Your task to perform on an android device: search for starred emails in the gmail app Image 0: 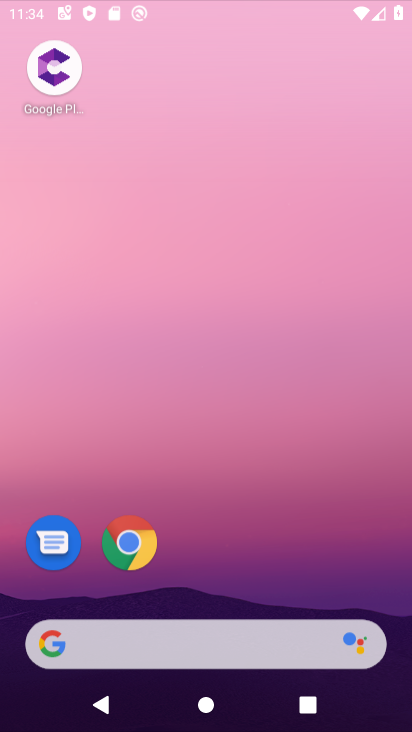
Step 0: click (259, 102)
Your task to perform on an android device: search for starred emails in the gmail app Image 1: 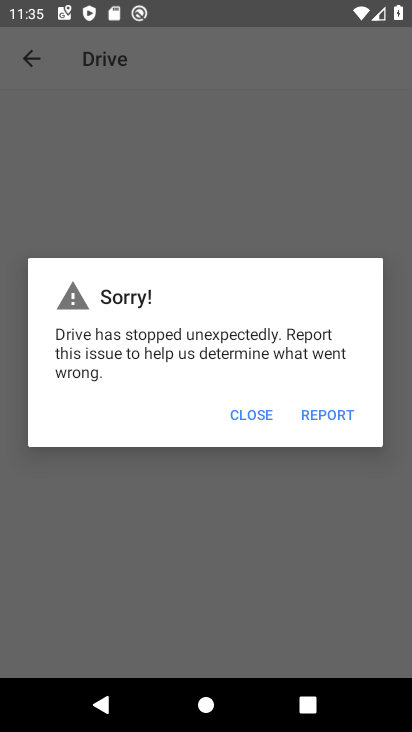
Step 1: press home button
Your task to perform on an android device: search for starred emails in the gmail app Image 2: 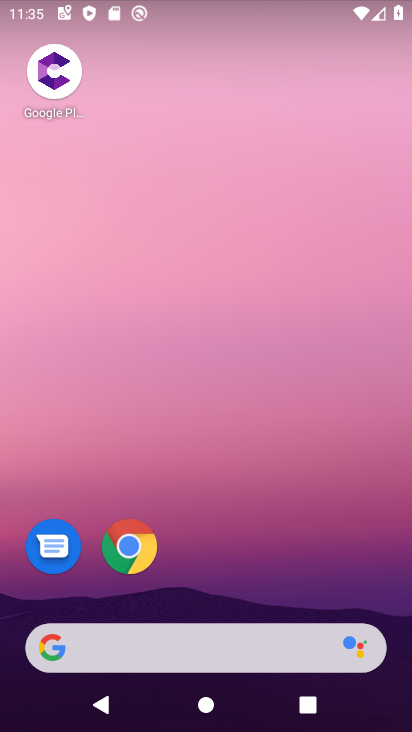
Step 2: drag from (227, 533) to (275, 157)
Your task to perform on an android device: search for starred emails in the gmail app Image 3: 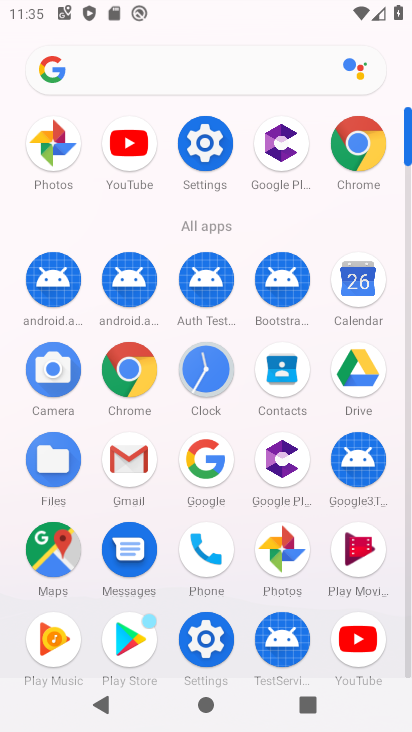
Step 3: click (128, 461)
Your task to perform on an android device: search for starred emails in the gmail app Image 4: 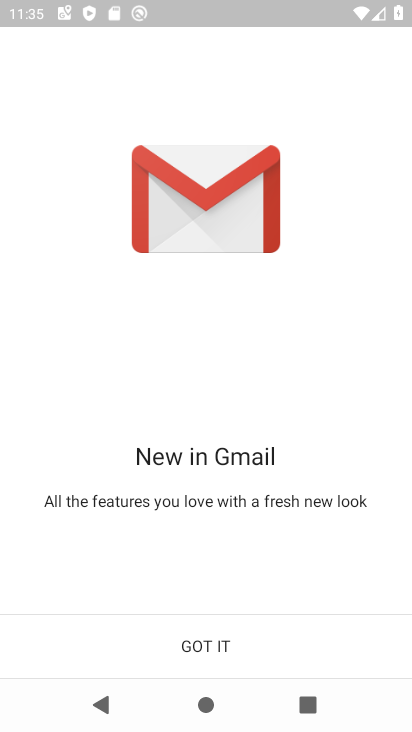
Step 4: click (208, 633)
Your task to perform on an android device: search for starred emails in the gmail app Image 5: 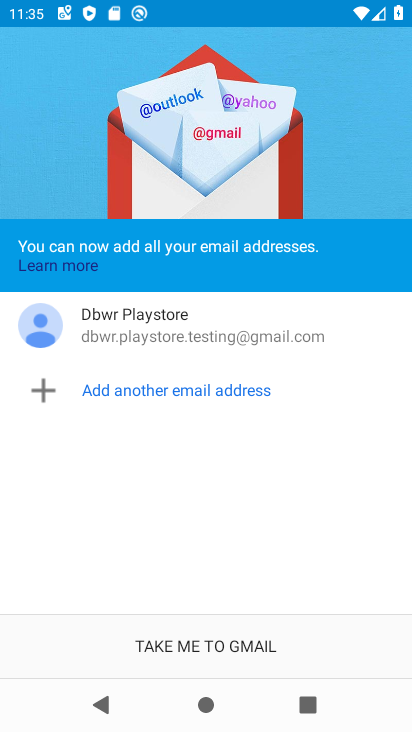
Step 5: click (206, 642)
Your task to perform on an android device: search for starred emails in the gmail app Image 6: 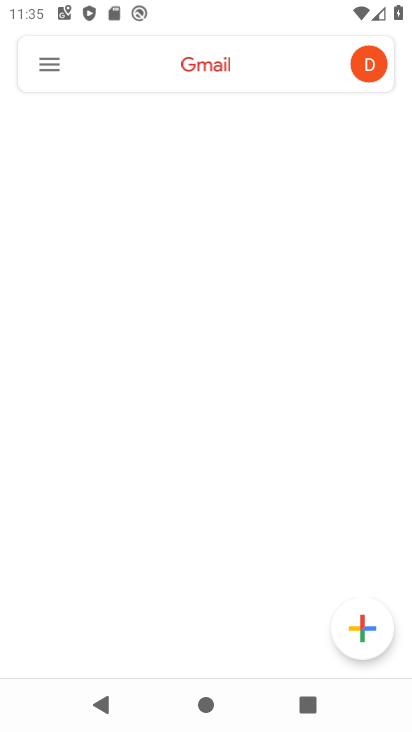
Step 6: click (206, 642)
Your task to perform on an android device: search for starred emails in the gmail app Image 7: 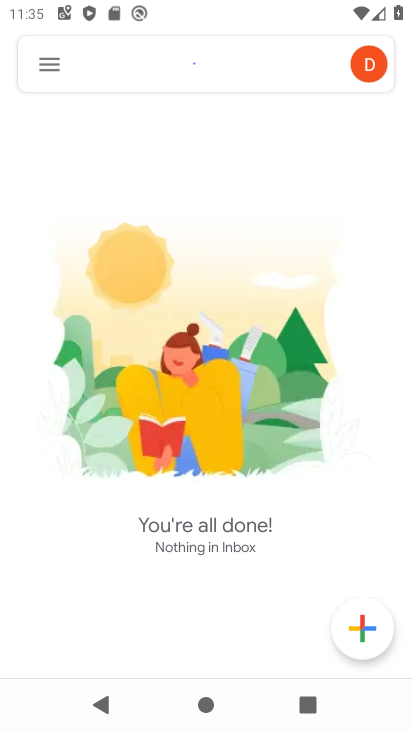
Step 7: click (48, 64)
Your task to perform on an android device: search for starred emails in the gmail app Image 8: 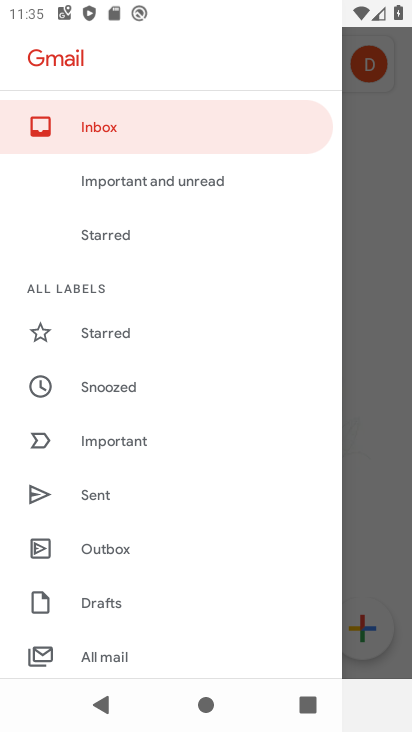
Step 8: click (105, 329)
Your task to perform on an android device: search for starred emails in the gmail app Image 9: 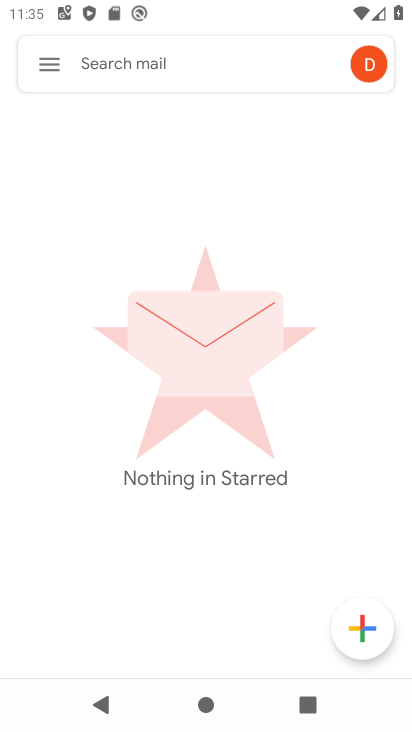
Step 9: task complete